Your task to perform on an android device: Go to internet settings Image 0: 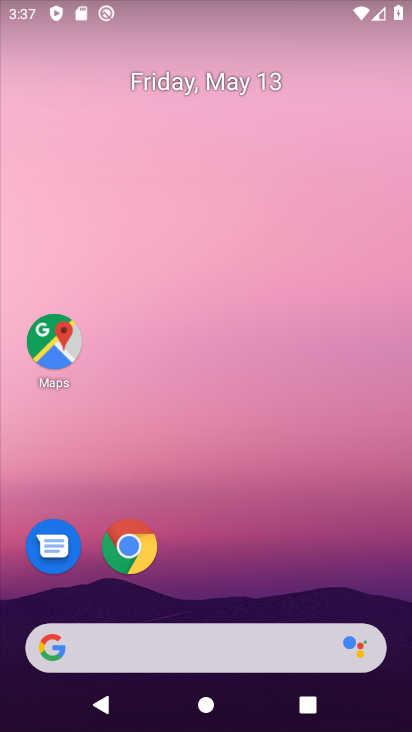
Step 0: drag from (220, 710) to (221, 236)
Your task to perform on an android device: Go to internet settings Image 1: 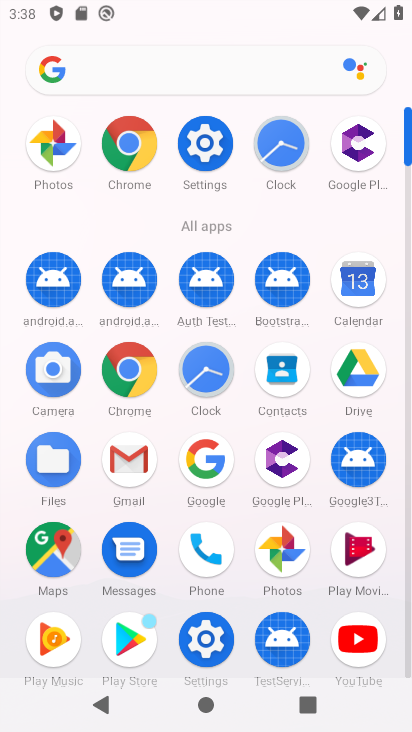
Step 1: click (207, 144)
Your task to perform on an android device: Go to internet settings Image 2: 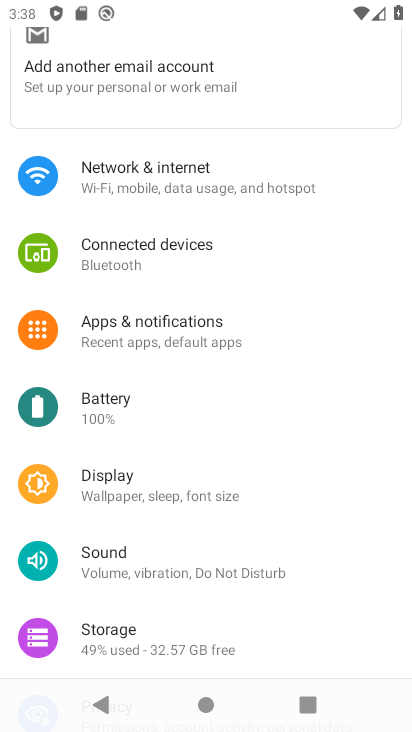
Step 2: click (148, 187)
Your task to perform on an android device: Go to internet settings Image 3: 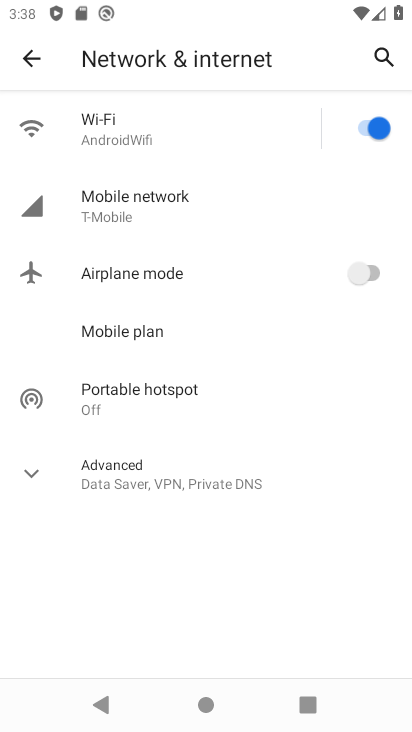
Step 3: task complete